Your task to perform on an android device: toggle show notifications on the lock screen Image 0: 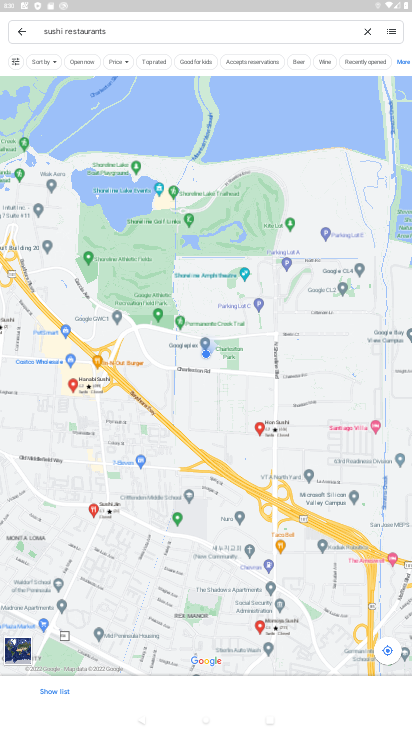
Step 0: press home button
Your task to perform on an android device: toggle show notifications on the lock screen Image 1: 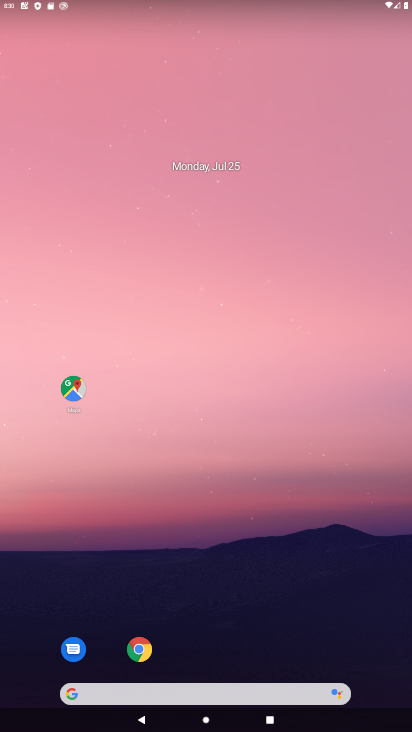
Step 1: drag from (186, 670) to (281, 30)
Your task to perform on an android device: toggle show notifications on the lock screen Image 2: 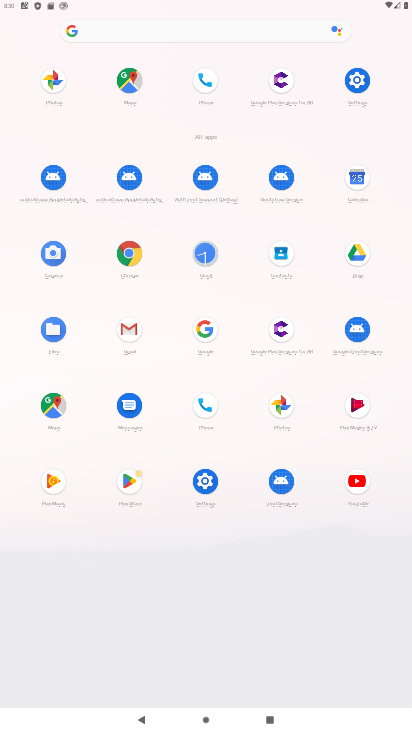
Step 2: click (205, 468)
Your task to perform on an android device: toggle show notifications on the lock screen Image 3: 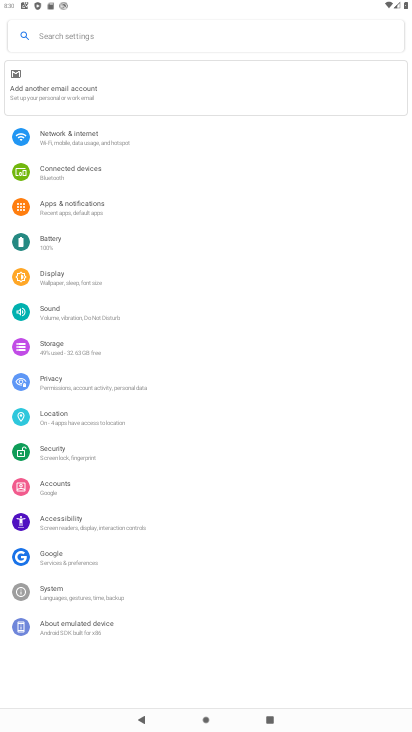
Step 3: click (69, 215)
Your task to perform on an android device: toggle show notifications on the lock screen Image 4: 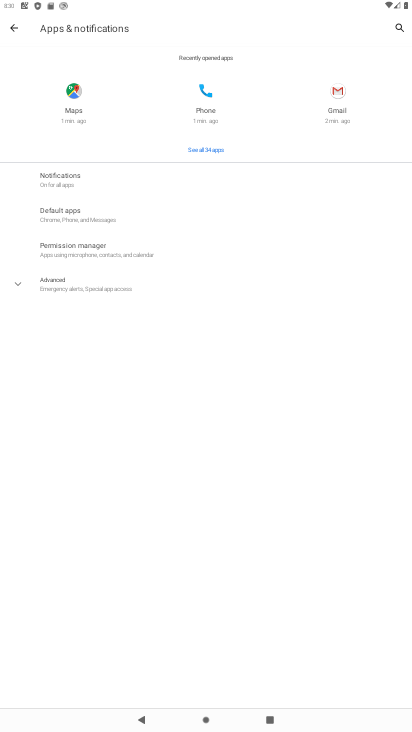
Step 4: click (48, 183)
Your task to perform on an android device: toggle show notifications on the lock screen Image 5: 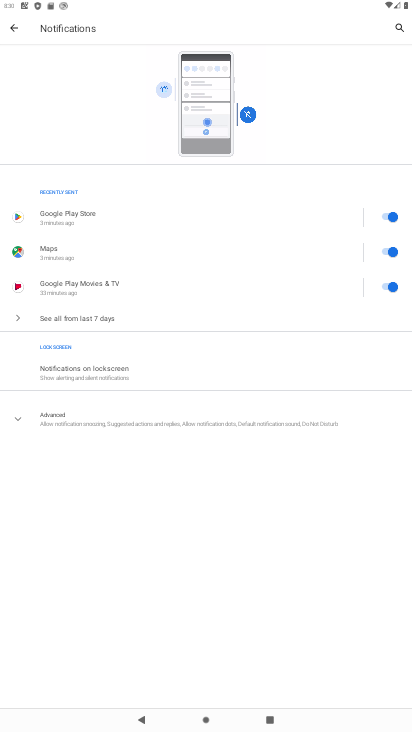
Step 5: click (102, 371)
Your task to perform on an android device: toggle show notifications on the lock screen Image 6: 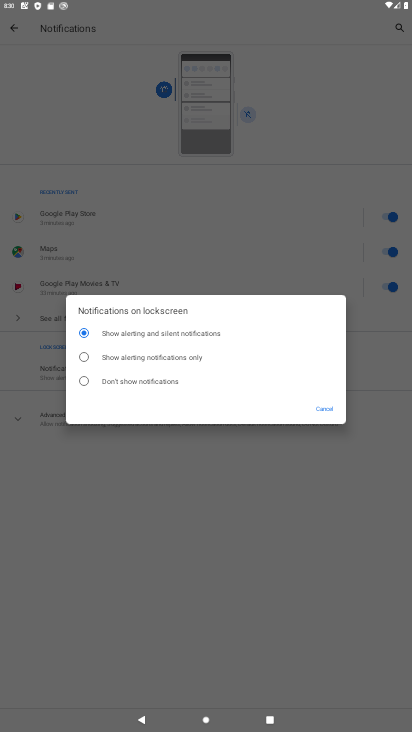
Step 6: click (100, 357)
Your task to perform on an android device: toggle show notifications on the lock screen Image 7: 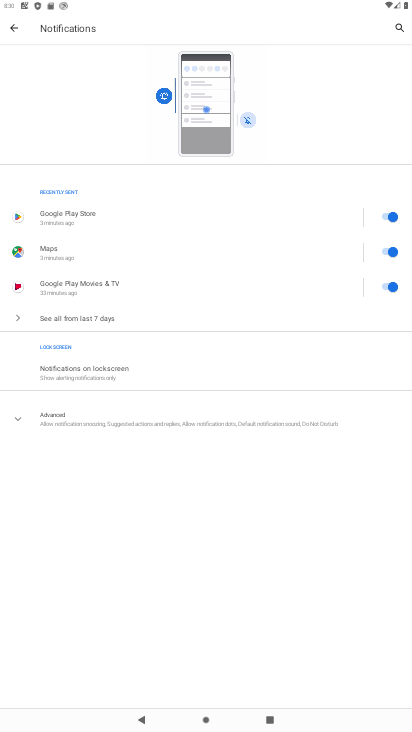
Step 7: task complete